Your task to perform on an android device: Show me popular videos on Youtube Image 0: 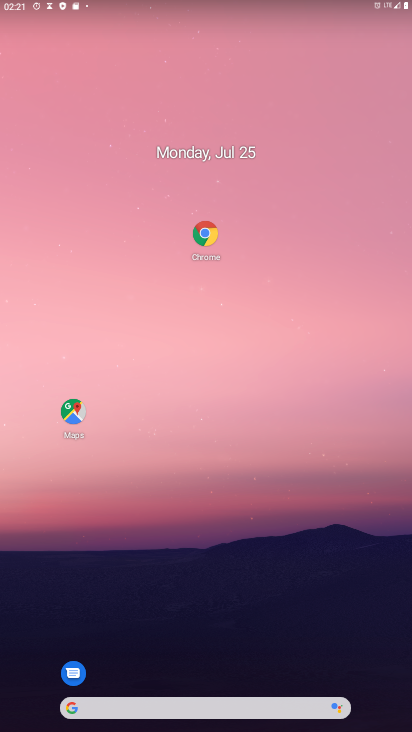
Step 0: drag from (281, 703) to (305, 46)
Your task to perform on an android device: Show me popular videos on Youtube Image 1: 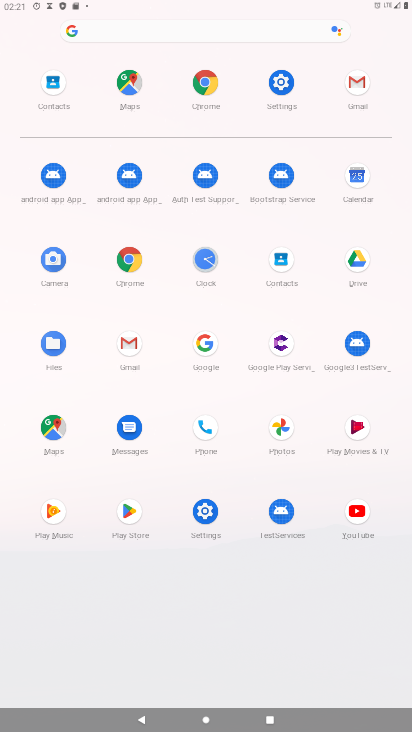
Step 1: click (355, 509)
Your task to perform on an android device: Show me popular videos on Youtube Image 2: 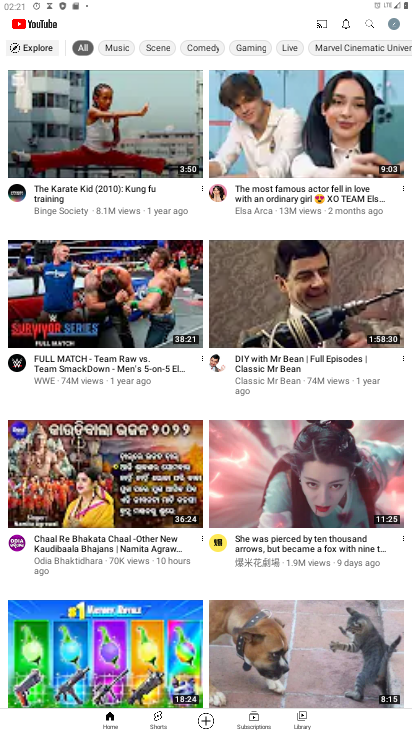
Step 2: task complete